Your task to perform on an android device: turn off notifications settings in the gmail app Image 0: 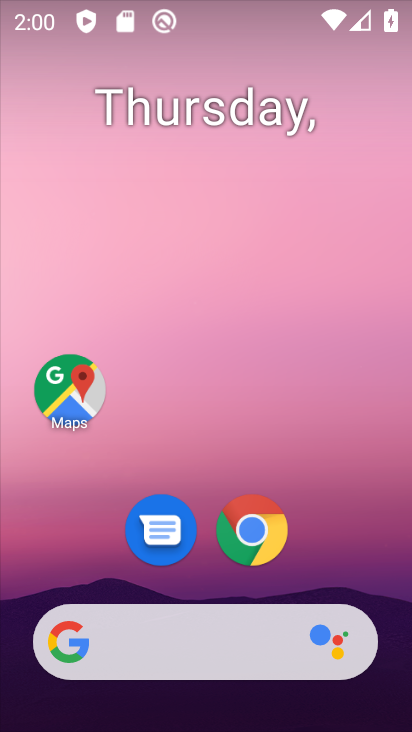
Step 0: drag from (50, 583) to (205, 40)
Your task to perform on an android device: turn off notifications settings in the gmail app Image 1: 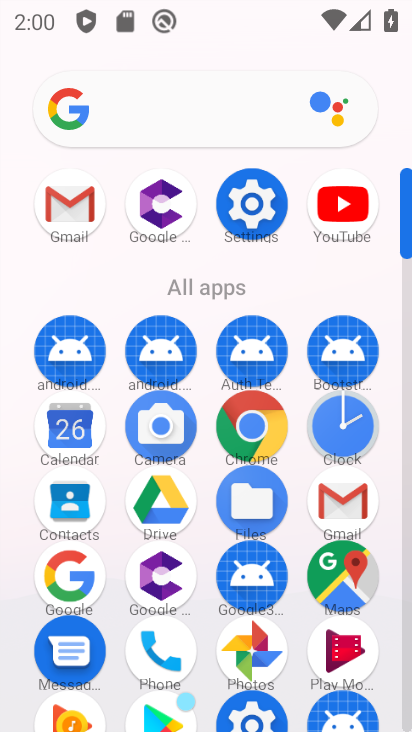
Step 1: click (368, 507)
Your task to perform on an android device: turn off notifications settings in the gmail app Image 2: 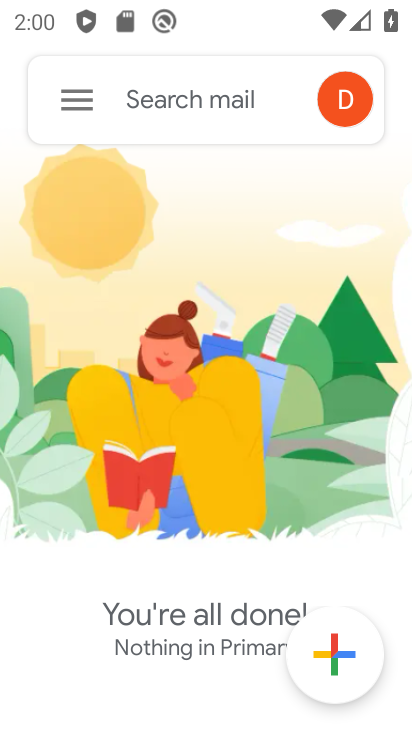
Step 2: click (99, 118)
Your task to perform on an android device: turn off notifications settings in the gmail app Image 3: 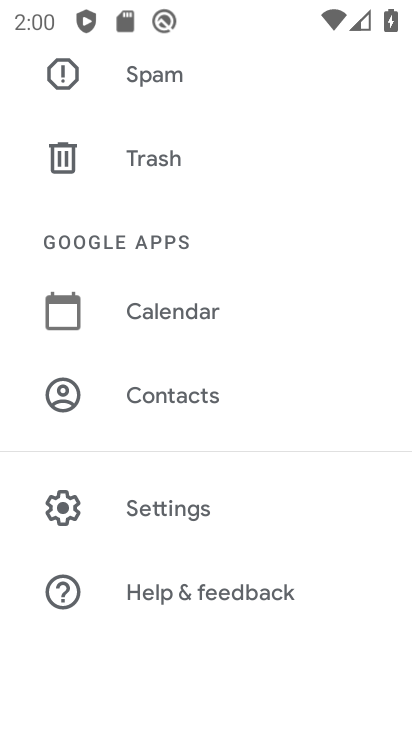
Step 3: click (168, 507)
Your task to perform on an android device: turn off notifications settings in the gmail app Image 4: 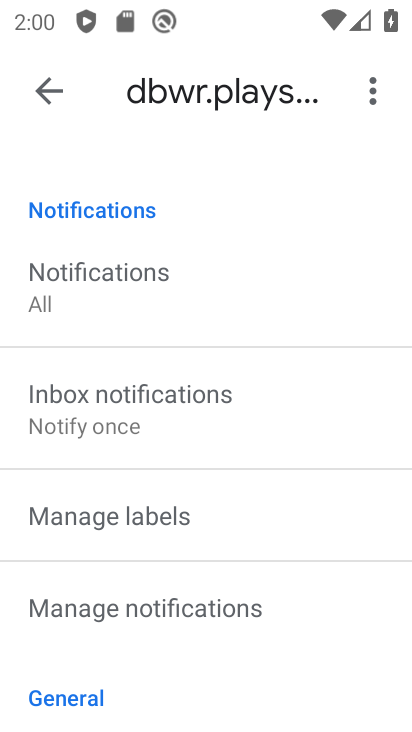
Step 4: click (192, 610)
Your task to perform on an android device: turn off notifications settings in the gmail app Image 5: 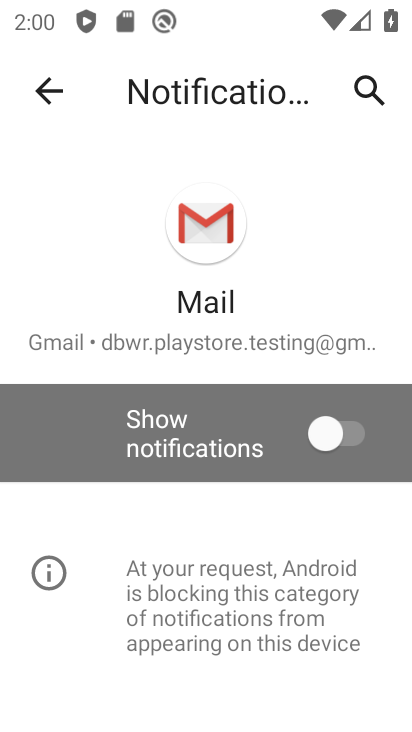
Step 5: task complete